Your task to perform on an android device: delete a single message in the gmail app Image 0: 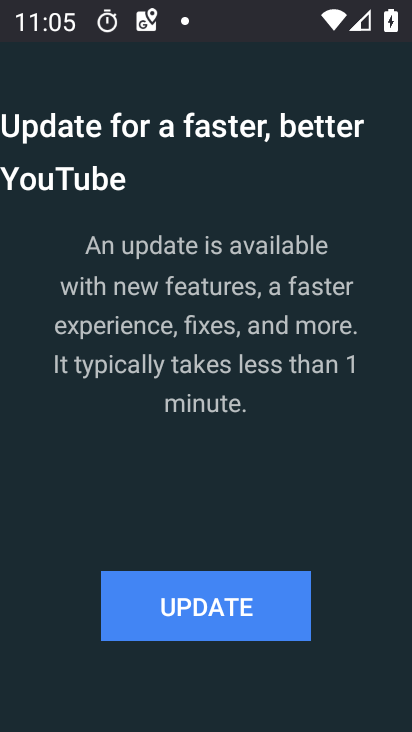
Step 0: press home button
Your task to perform on an android device: delete a single message in the gmail app Image 1: 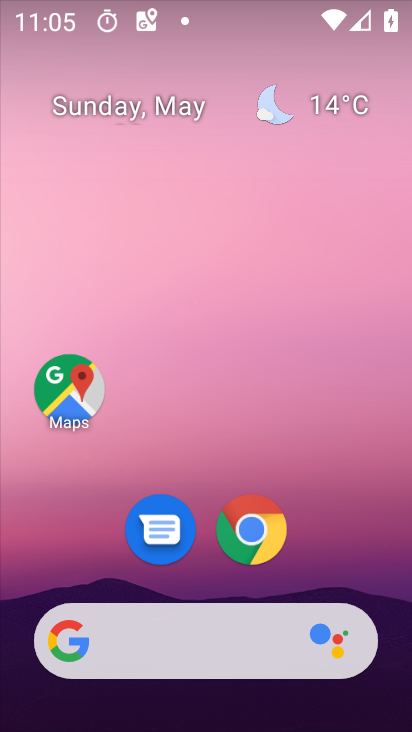
Step 1: drag from (215, 631) to (232, 228)
Your task to perform on an android device: delete a single message in the gmail app Image 2: 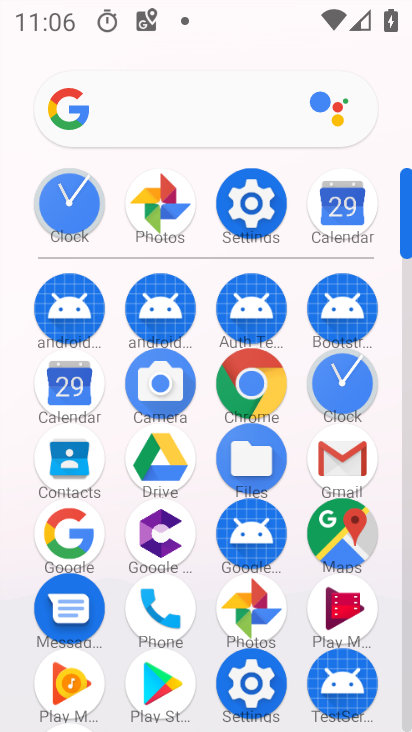
Step 2: click (340, 451)
Your task to perform on an android device: delete a single message in the gmail app Image 3: 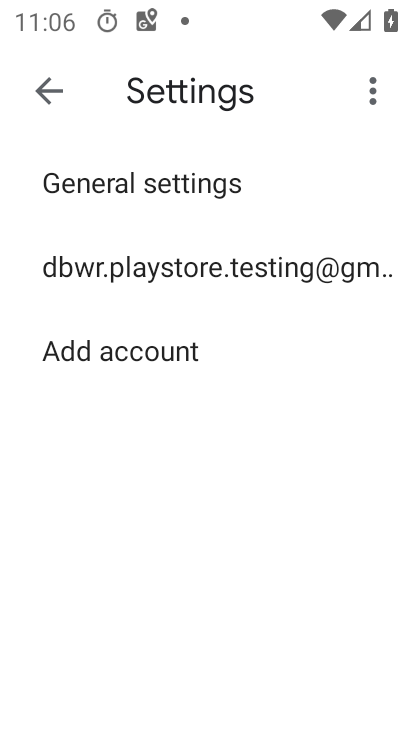
Step 3: click (49, 81)
Your task to perform on an android device: delete a single message in the gmail app Image 4: 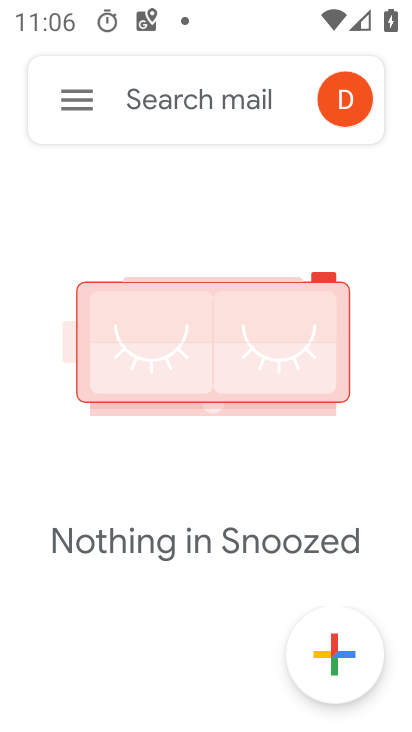
Step 4: click (87, 103)
Your task to perform on an android device: delete a single message in the gmail app Image 5: 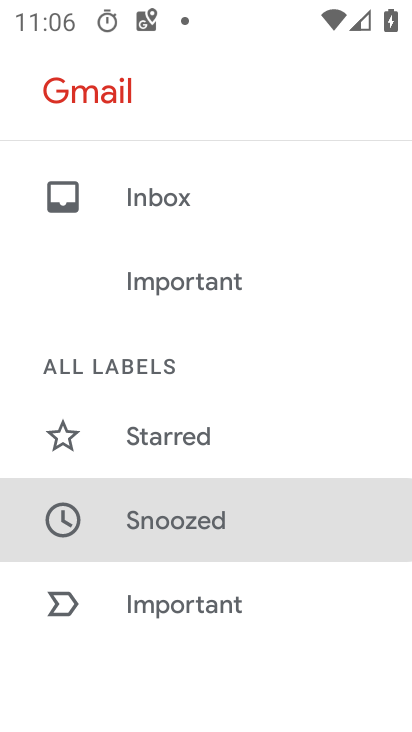
Step 5: drag from (170, 468) to (177, 86)
Your task to perform on an android device: delete a single message in the gmail app Image 6: 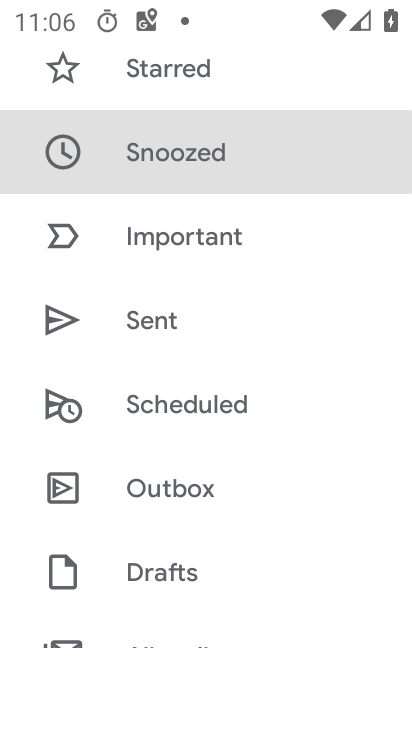
Step 6: drag from (167, 543) to (155, 4)
Your task to perform on an android device: delete a single message in the gmail app Image 7: 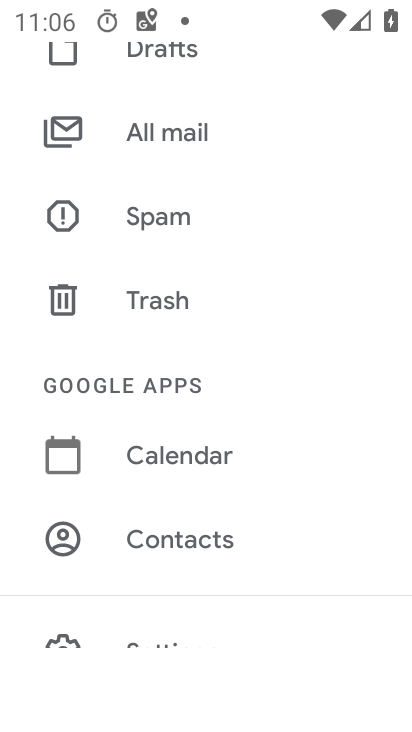
Step 7: click (172, 141)
Your task to perform on an android device: delete a single message in the gmail app Image 8: 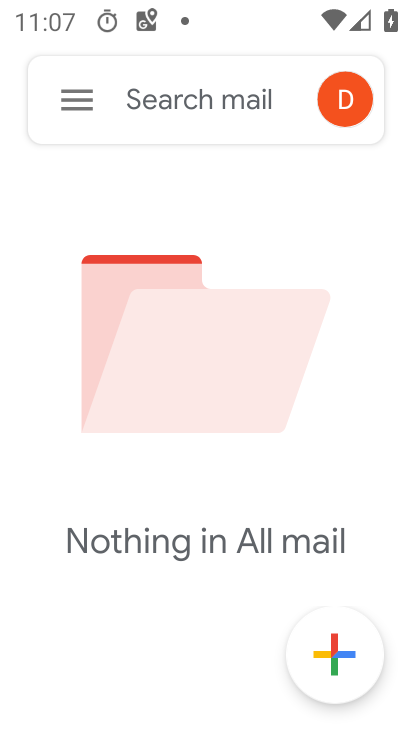
Step 8: task complete